Your task to perform on an android device: delete location history Image 0: 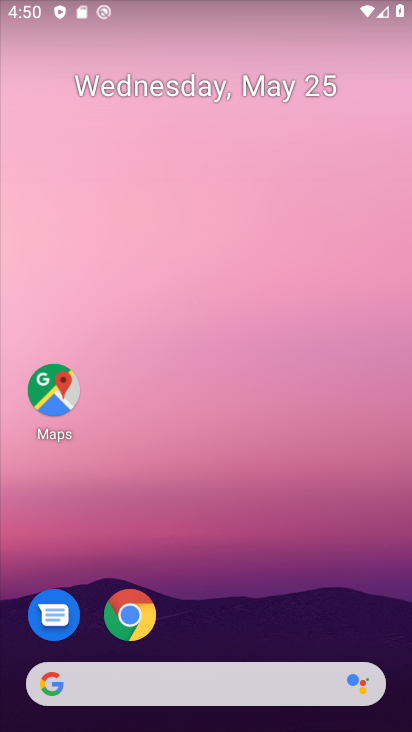
Step 0: drag from (227, 626) to (227, 729)
Your task to perform on an android device: delete location history Image 1: 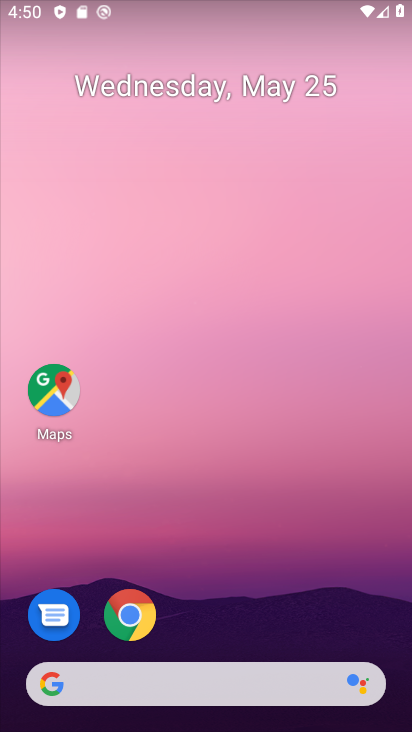
Step 1: click (65, 409)
Your task to perform on an android device: delete location history Image 2: 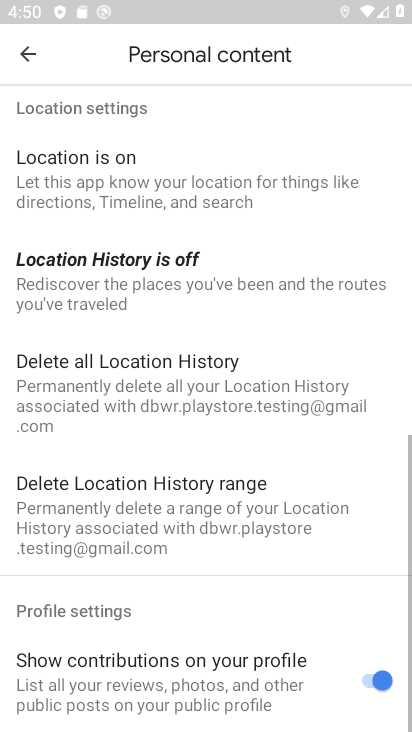
Step 2: click (144, 375)
Your task to perform on an android device: delete location history Image 3: 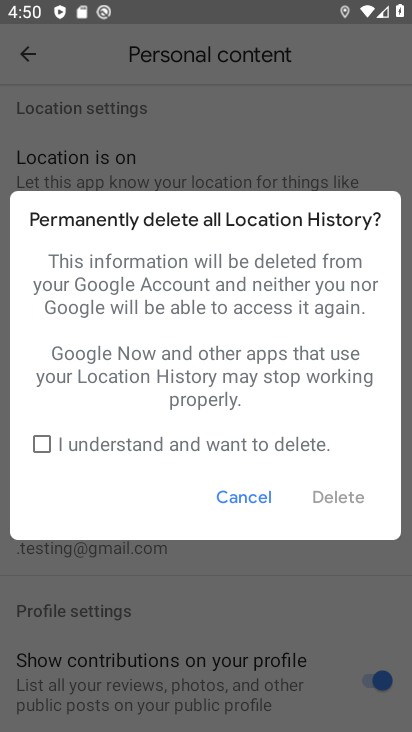
Step 3: click (145, 440)
Your task to perform on an android device: delete location history Image 4: 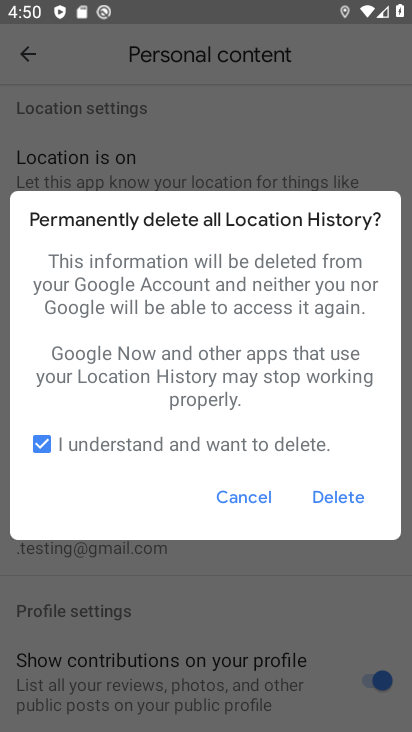
Step 4: click (329, 492)
Your task to perform on an android device: delete location history Image 5: 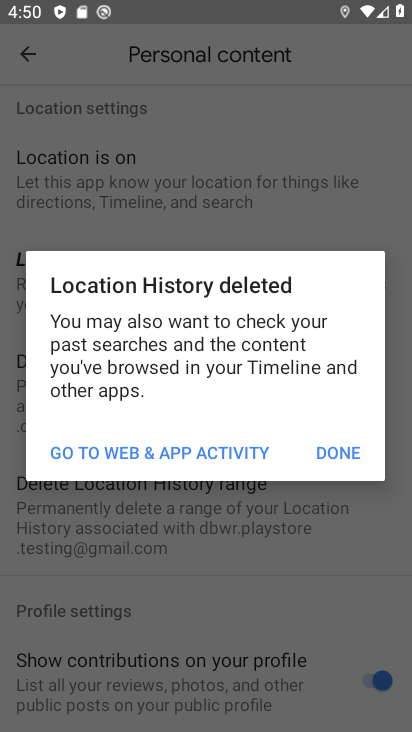
Step 5: click (338, 446)
Your task to perform on an android device: delete location history Image 6: 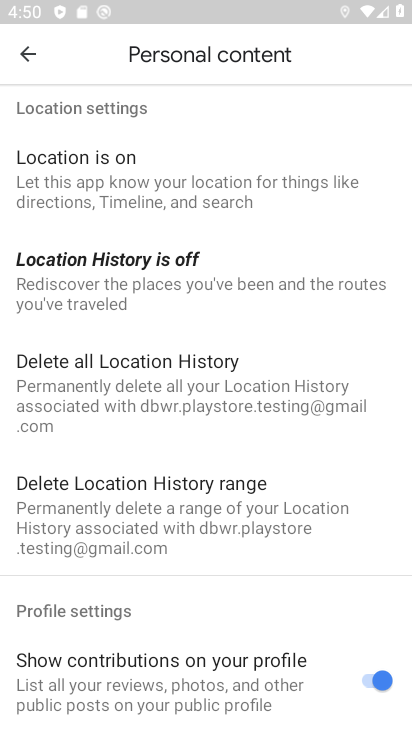
Step 6: task complete